Your task to perform on an android device: open app "Indeed Job Search" (install if not already installed) and go to login screen Image 0: 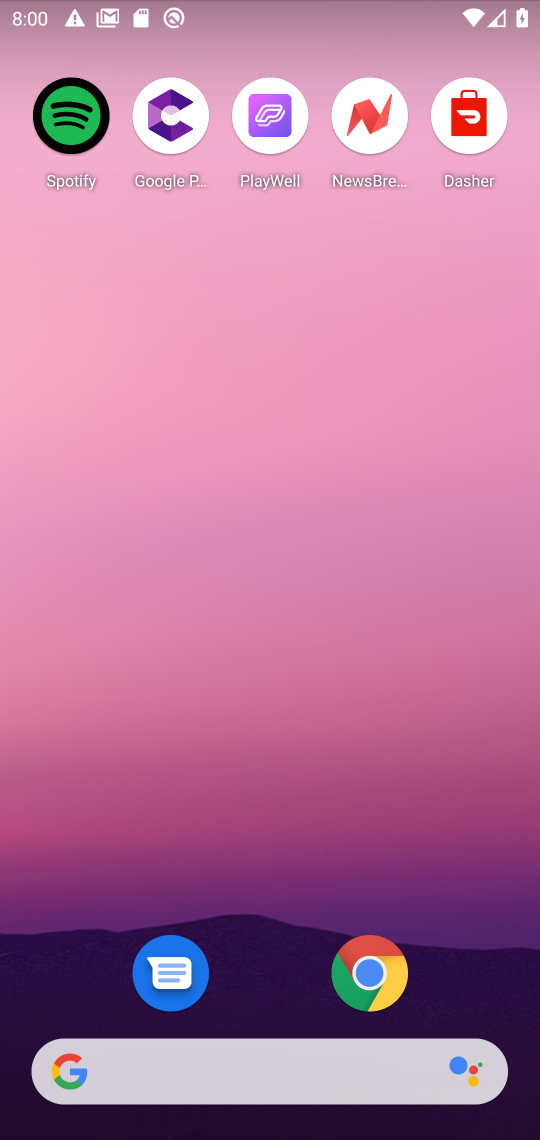
Step 0: drag from (248, 1051) to (485, 679)
Your task to perform on an android device: open app "Indeed Job Search" (install if not already installed) and go to login screen Image 1: 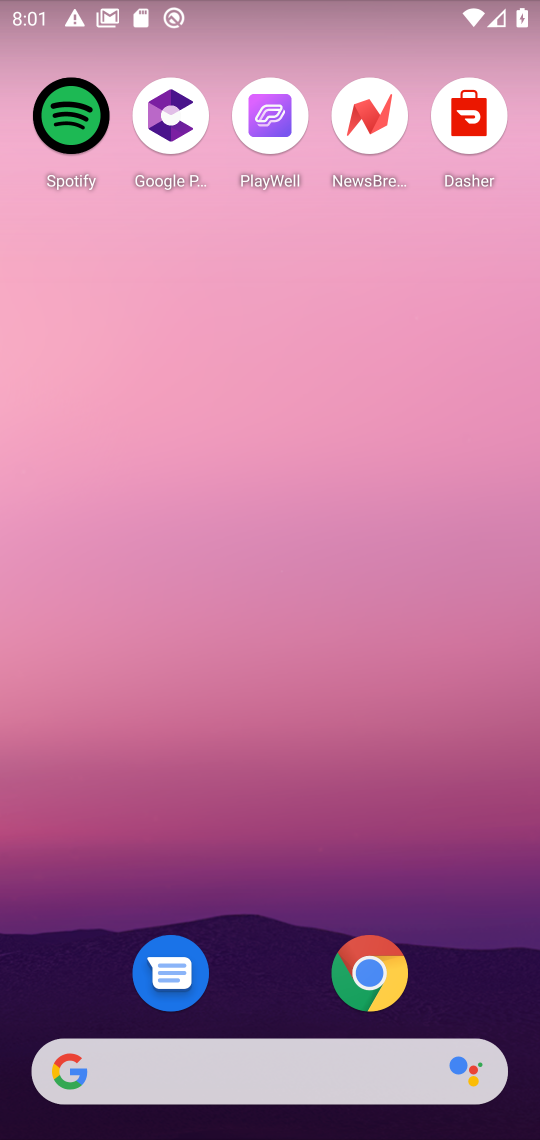
Step 1: drag from (272, 979) to (352, 203)
Your task to perform on an android device: open app "Indeed Job Search" (install if not already installed) and go to login screen Image 2: 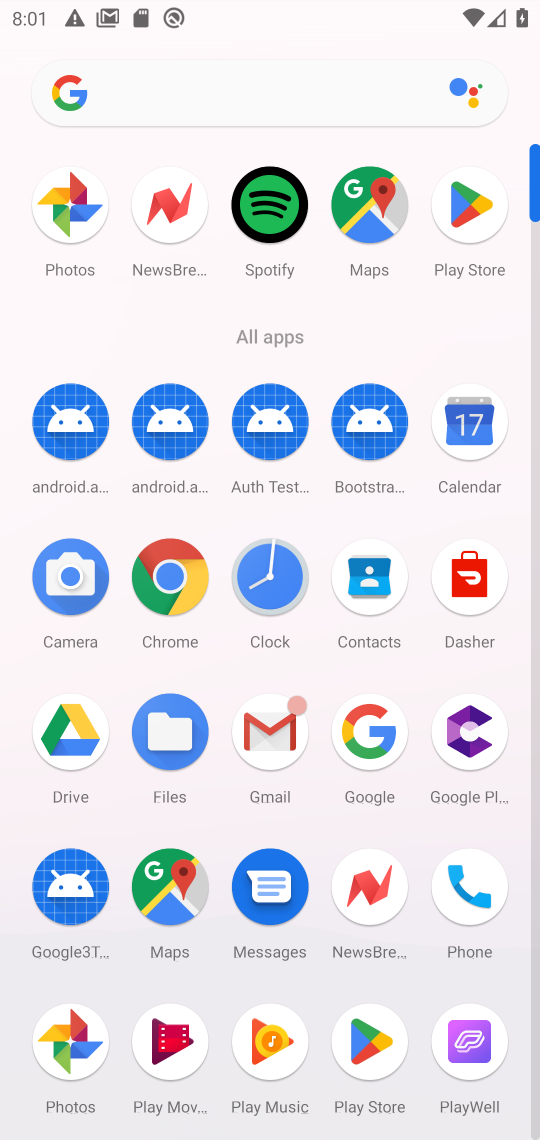
Step 2: click (481, 223)
Your task to perform on an android device: open app "Indeed Job Search" (install if not already installed) and go to login screen Image 3: 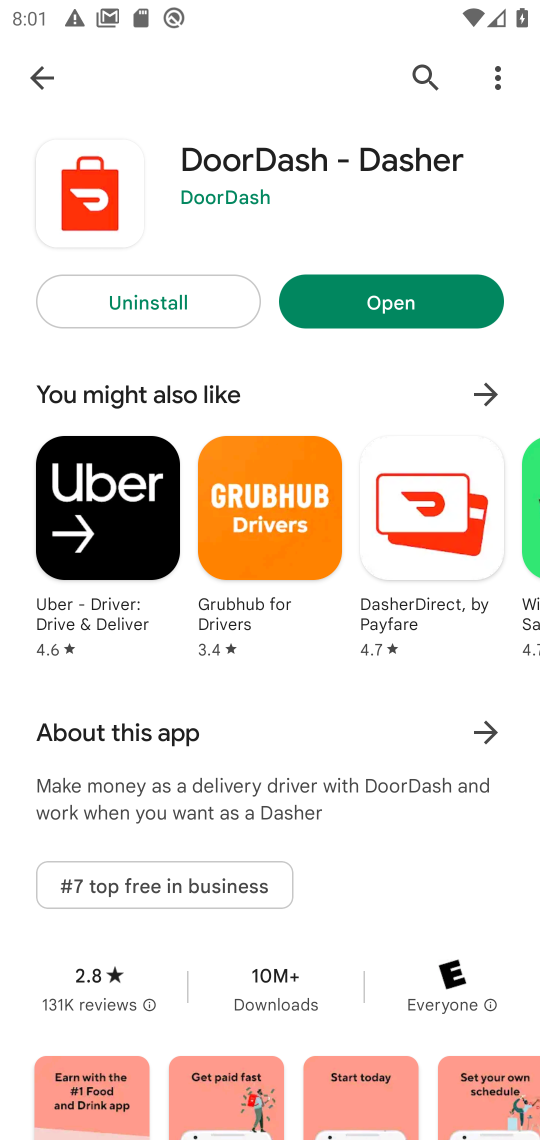
Step 3: click (50, 75)
Your task to perform on an android device: open app "Indeed Job Search" (install if not already installed) and go to login screen Image 4: 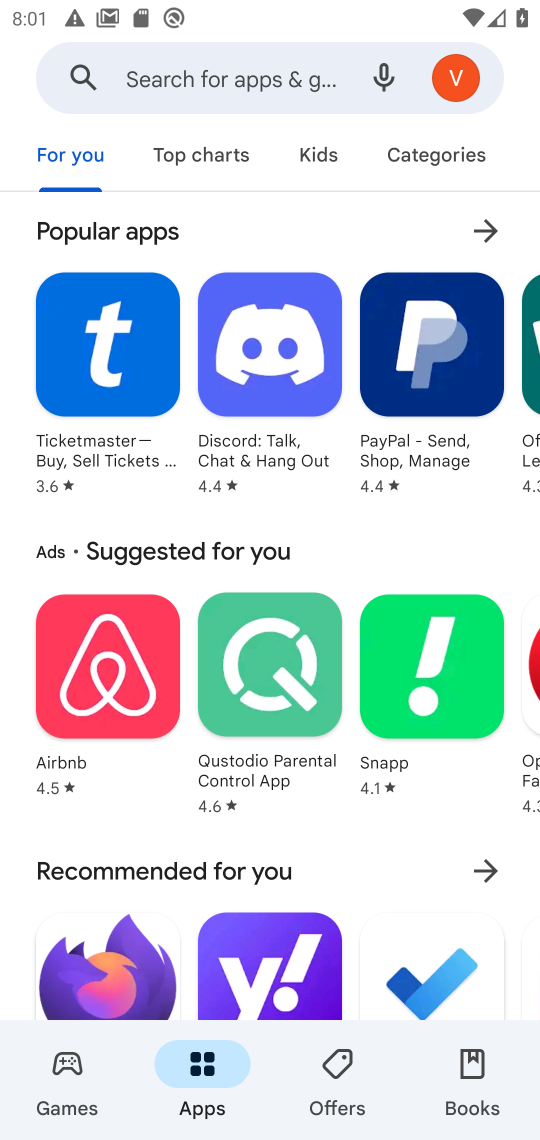
Step 4: click (208, 87)
Your task to perform on an android device: open app "Indeed Job Search" (install if not already installed) and go to login screen Image 5: 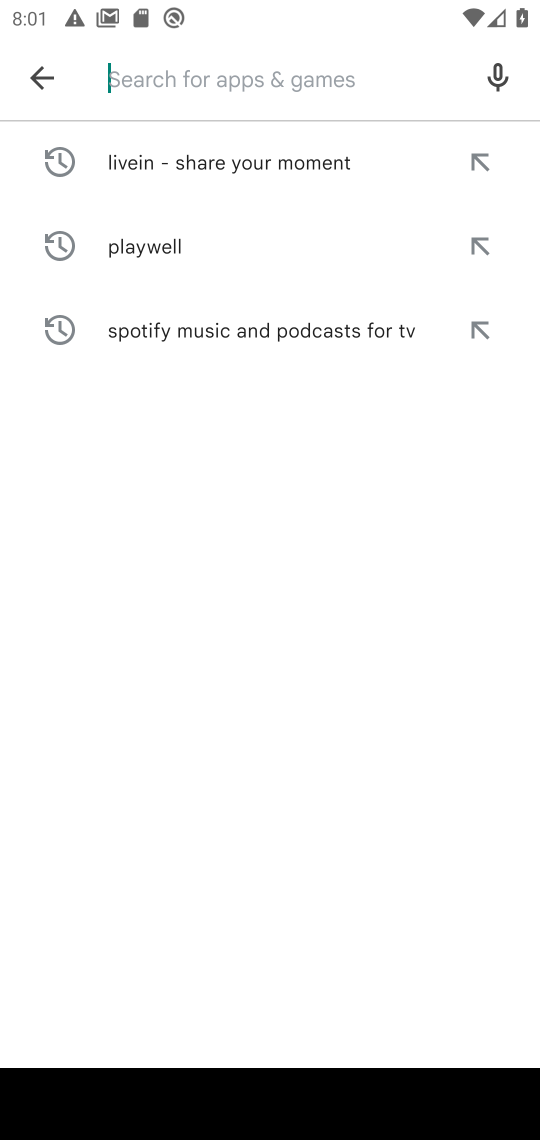
Step 5: type "Indeed Job Search"
Your task to perform on an android device: open app "Indeed Job Search" (install if not already installed) and go to login screen Image 6: 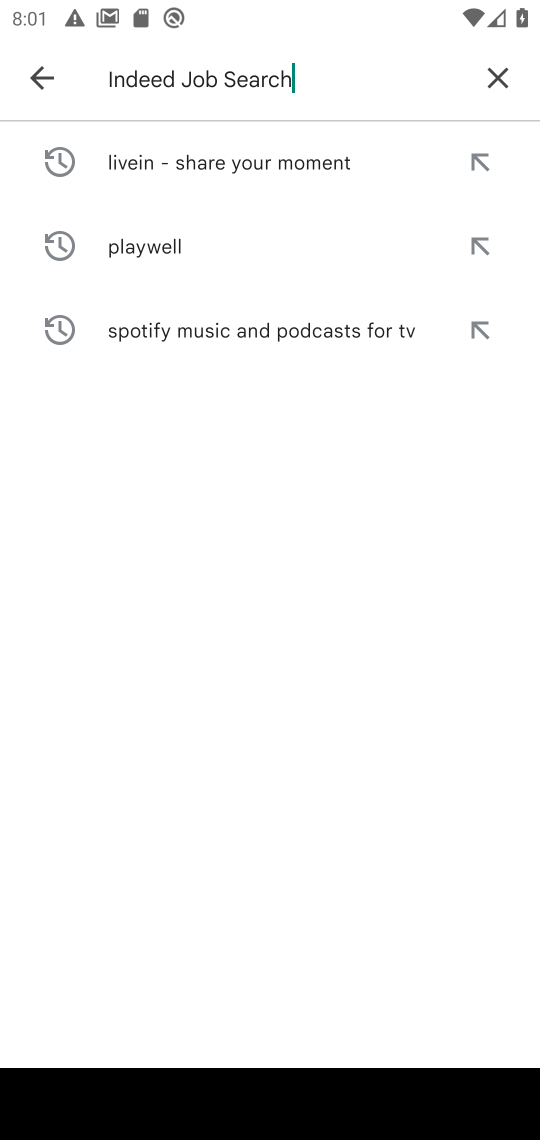
Step 6: type ""
Your task to perform on an android device: open app "Indeed Job Search" (install if not already installed) and go to login screen Image 7: 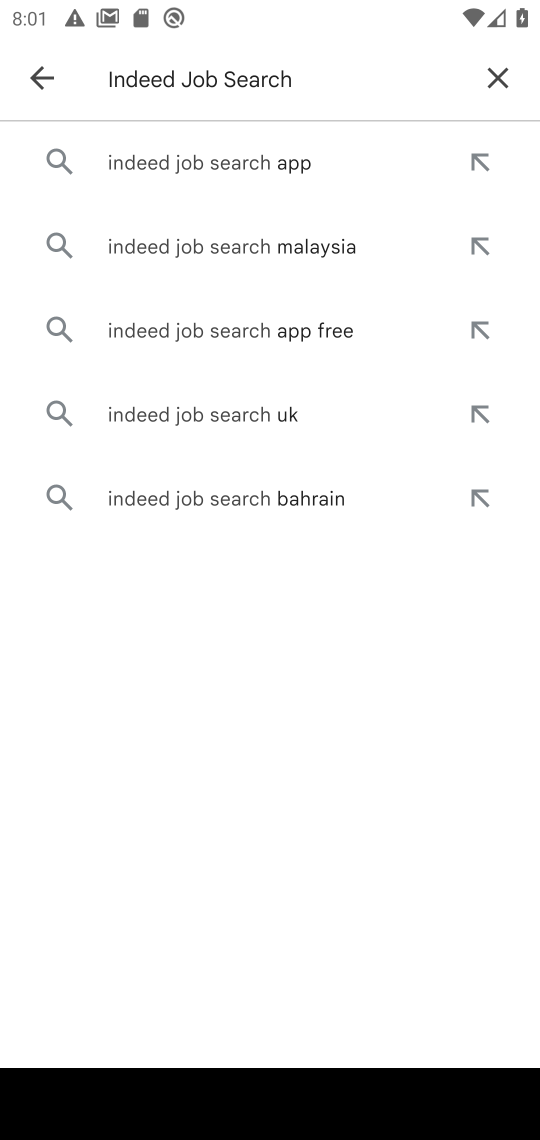
Step 7: click (346, 181)
Your task to perform on an android device: open app "Indeed Job Search" (install if not already installed) and go to login screen Image 8: 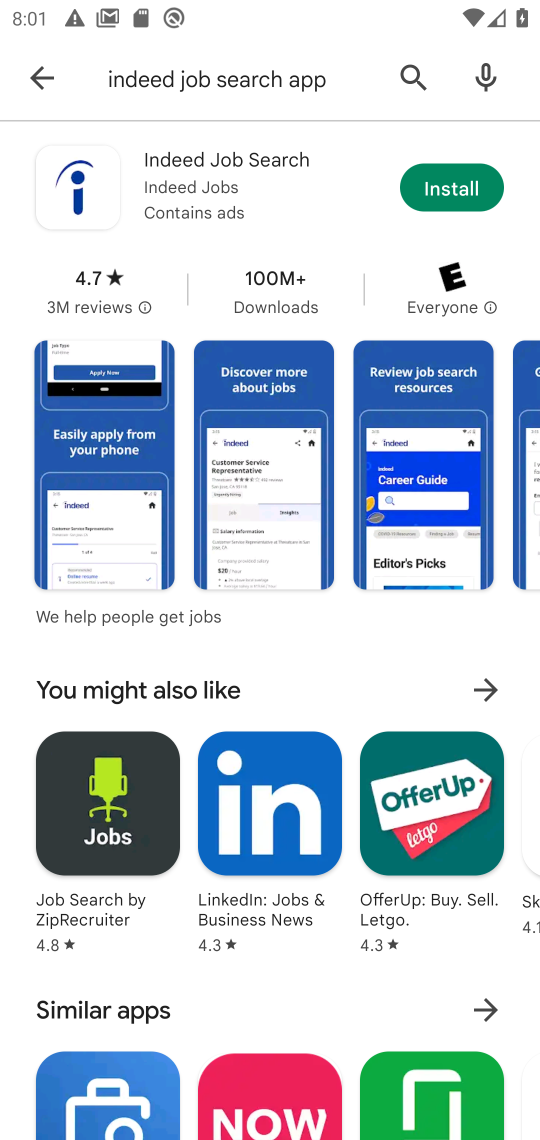
Step 8: click (467, 184)
Your task to perform on an android device: open app "Indeed Job Search" (install if not already installed) and go to login screen Image 9: 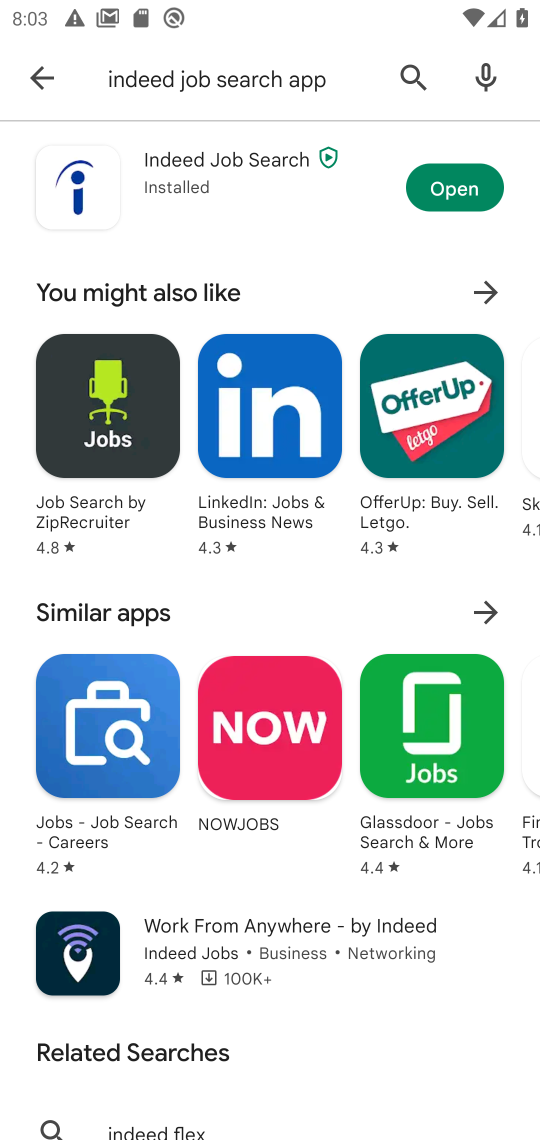
Step 9: click (472, 192)
Your task to perform on an android device: open app "Indeed Job Search" (install if not already installed) and go to login screen Image 10: 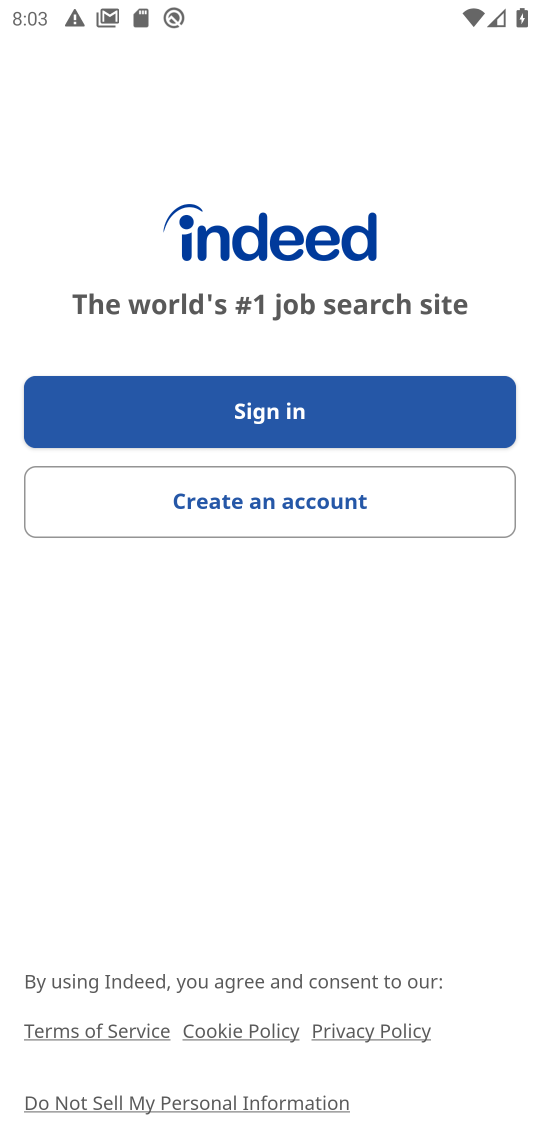
Step 10: task complete